Your task to perform on an android device: Do I have any events this weekend? Image 0: 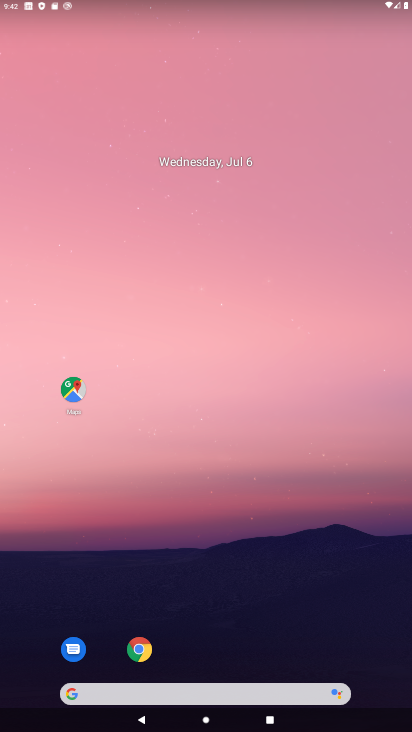
Step 0: drag from (209, 682) to (211, 128)
Your task to perform on an android device: Do I have any events this weekend? Image 1: 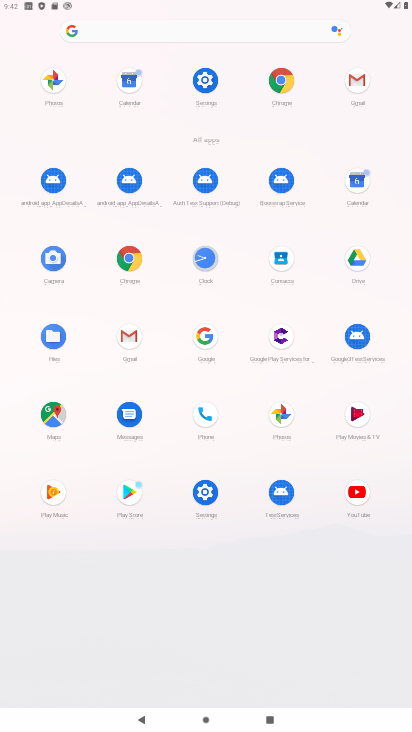
Step 1: click (355, 187)
Your task to perform on an android device: Do I have any events this weekend? Image 2: 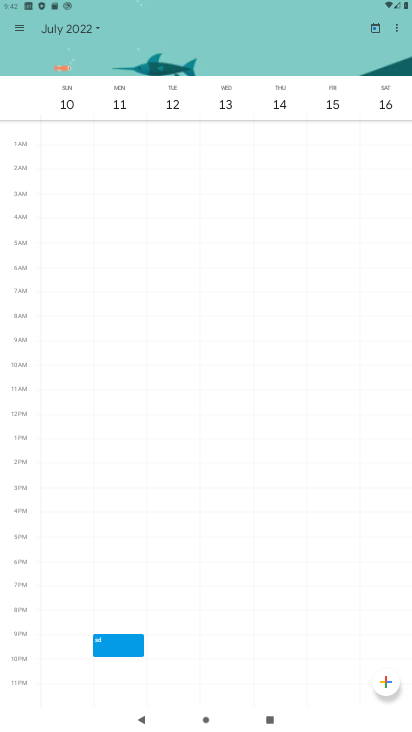
Step 2: task complete